Your task to perform on an android device: Open Maps and search for coffee Image 0: 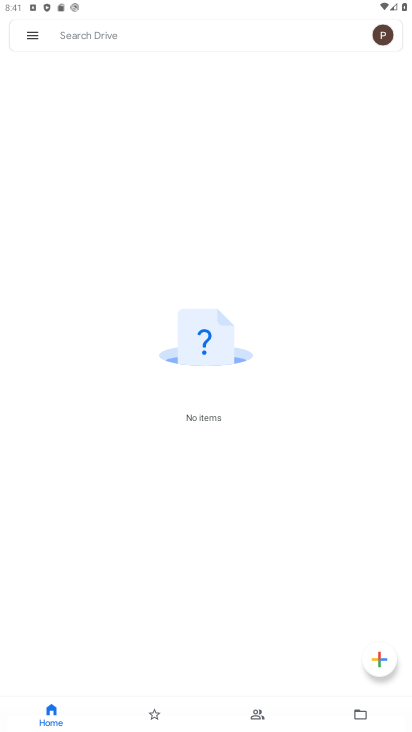
Step 0: press home button
Your task to perform on an android device: Open Maps and search for coffee Image 1: 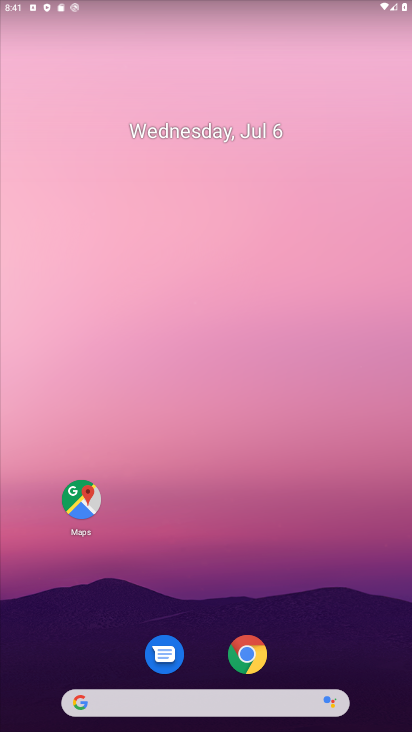
Step 1: click (73, 505)
Your task to perform on an android device: Open Maps and search for coffee Image 2: 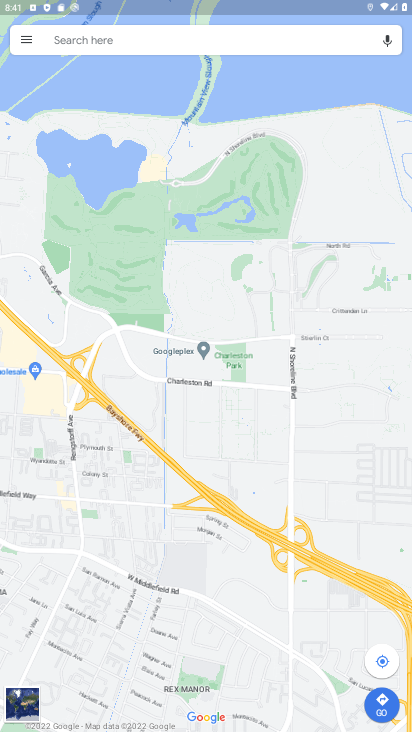
Step 2: click (183, 42)
Your task to perform on an android device: Open Maps and search for coffee Image 3: 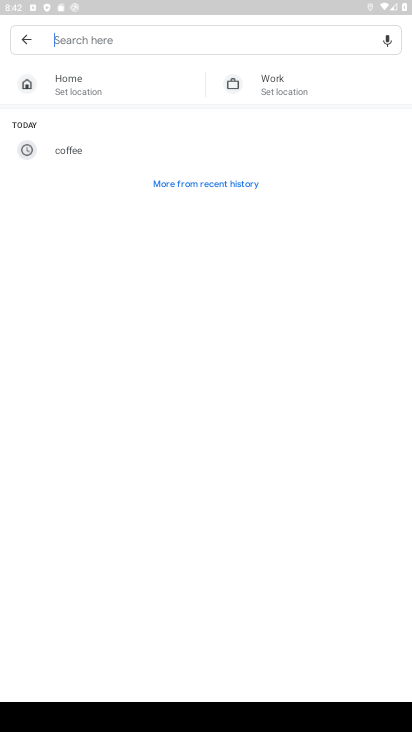
Step 3: click (208, 142)
Your task to perform on an android device: Open Maps and search for coffee Image 4: 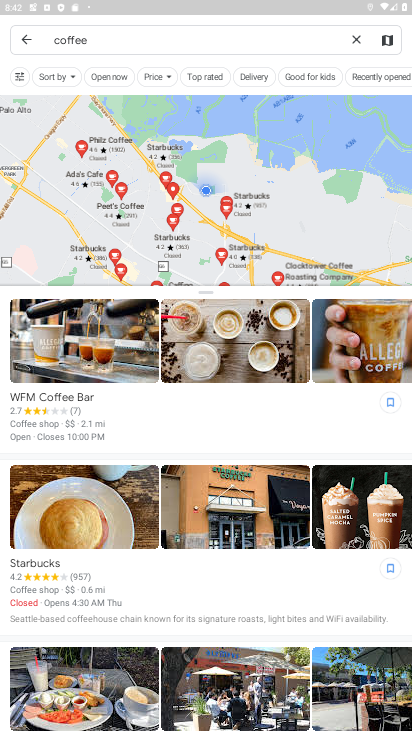
Step 4: task complete